Your task to perform on an android device: turn on improve location accuracy Image 0: 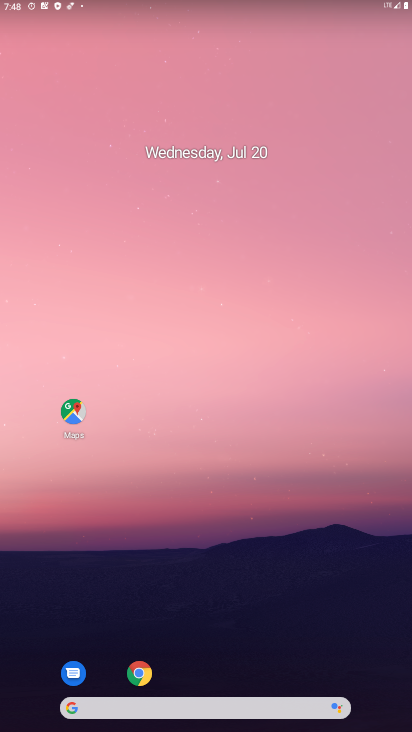
Step 0: drag from (383, 693) to (152, 85)
Your task to perform on an android device: turn on improve location accuracy Image 1: 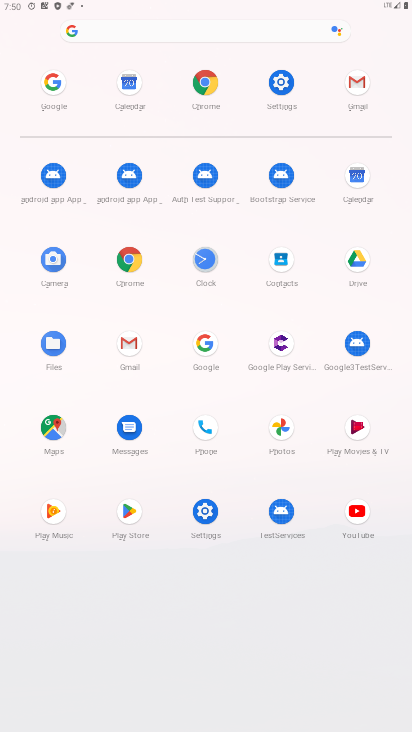
Step 1: click (211, 522)
Your task to perform on an android device: turn on improve location accuracy Image 2: 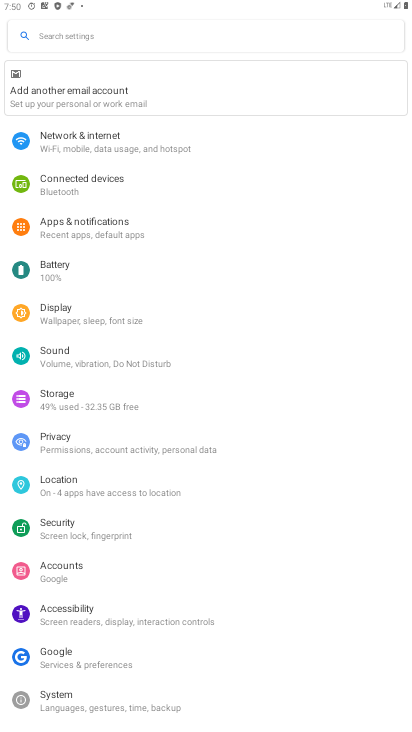
Step 2: click (78, 488)
Your task to perform on an android device: turn on improve location accuracy Image 3: 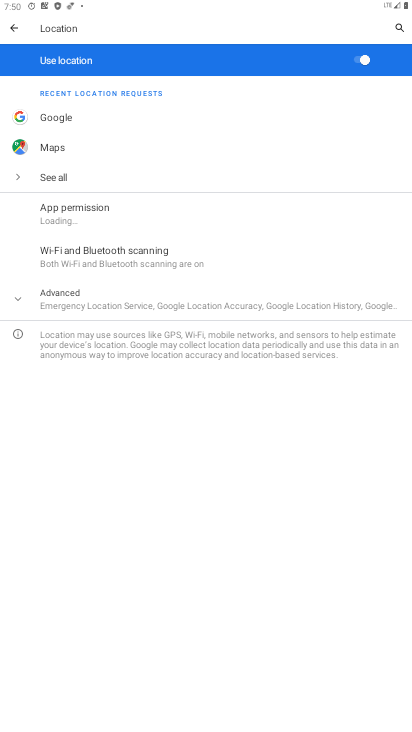
Step 3: click (99, 307)
Your task to perform on an android device: turn on improve location accuracy Image 4: 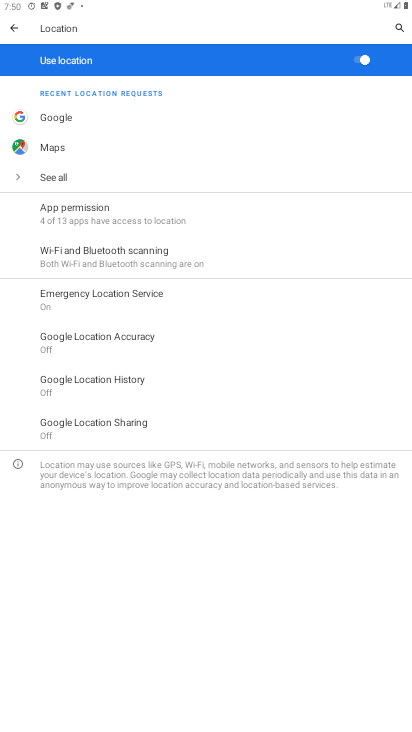
Step 4: click (110, 338)
Your task to perform on an android device: turn on improve location accuracy Image 5: 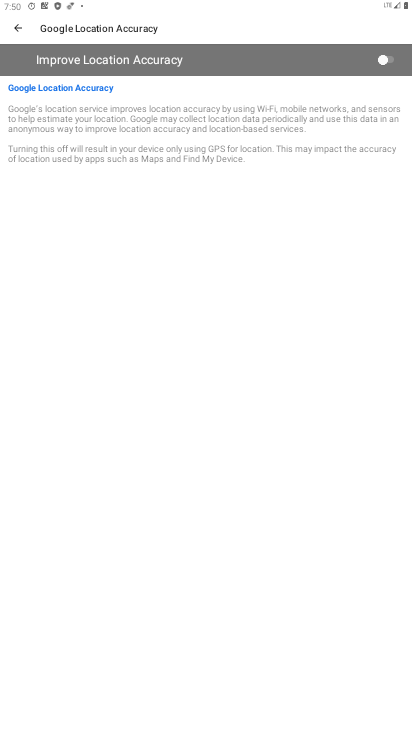
Step 5: click (345, 61)
Your task to perform on an android device: turn on improve location accuracy Image 6: 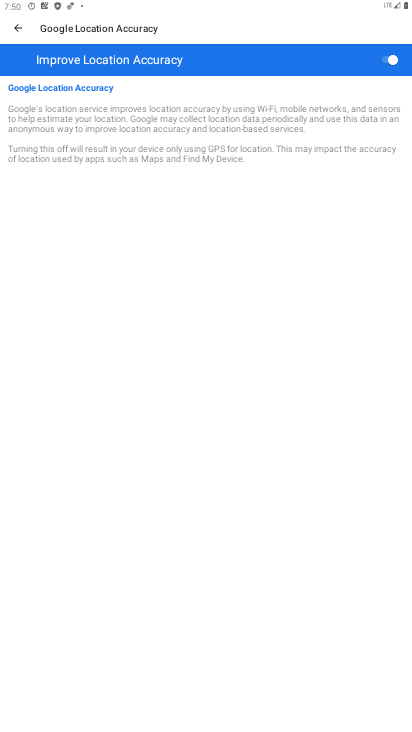
Step 6: task complete